Your task to perform on an android device: turn on data saver in the chrome app Image 0: 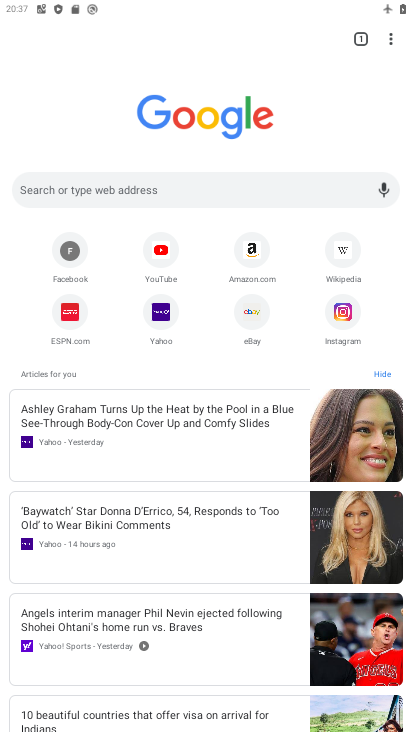
Step 0: click (390, 41)
Your task to perform on an android device: turn on data saver in the chrome app Image 1: 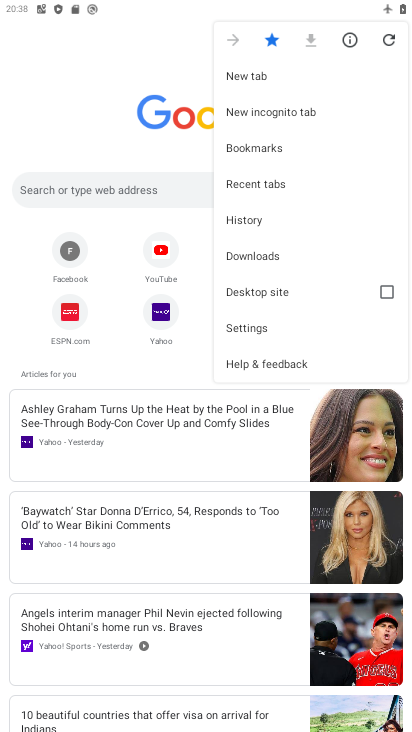
Step 1: click (257, 336)
Your task to perform on an android device: turn on data saver in the chrome app Image 2: 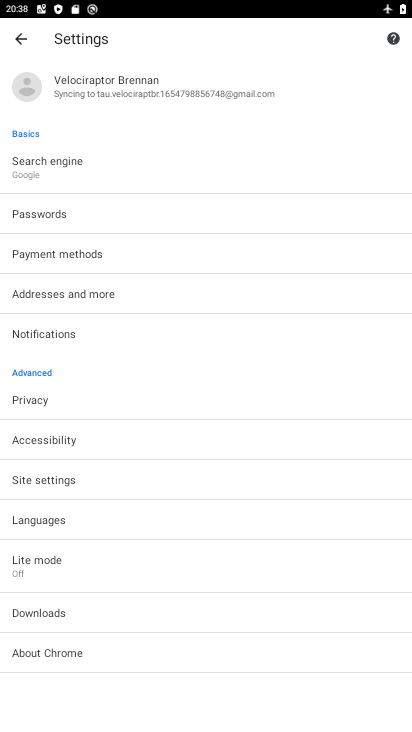
Step 2: click (23, 558)
Your task to perform on an android device: turn on data saver in the chrome app Image 3: 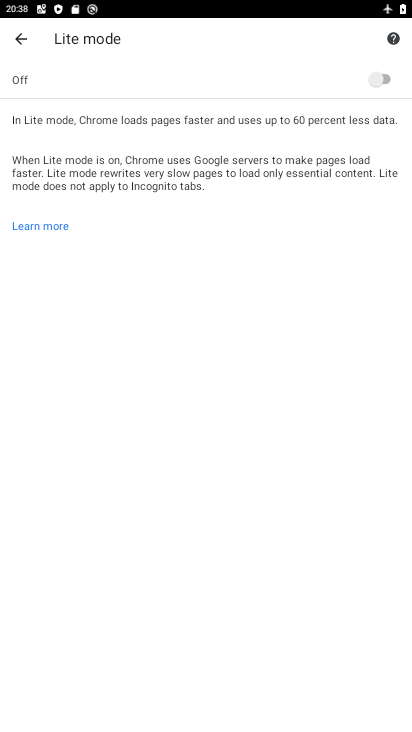
Step 3: click (388, 77)
Your task to perform on an android device: turn on data saver in the chrome app Image 4: 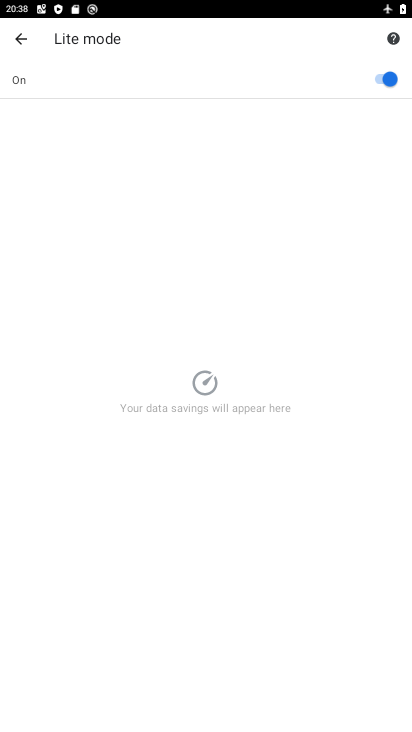
Step 4: task complete